Your task to perform on an android device: remove spam from my inbox in the gmail app Image 0: 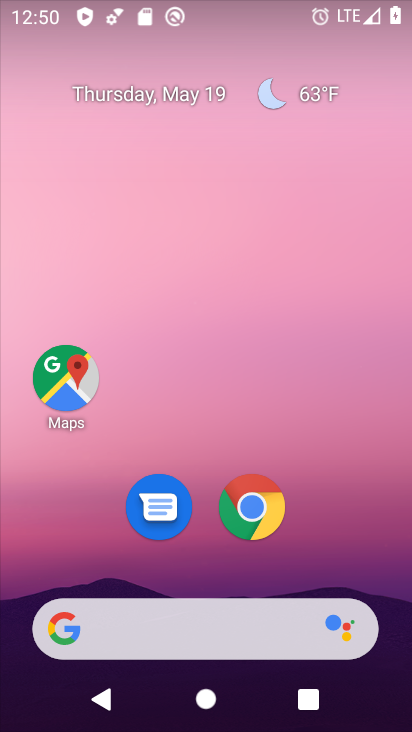
Step 0: drag from (194, 540) to (244, 248)
Your task to perform on an android device: remove spam from my inbox in the gmail app Image 1: 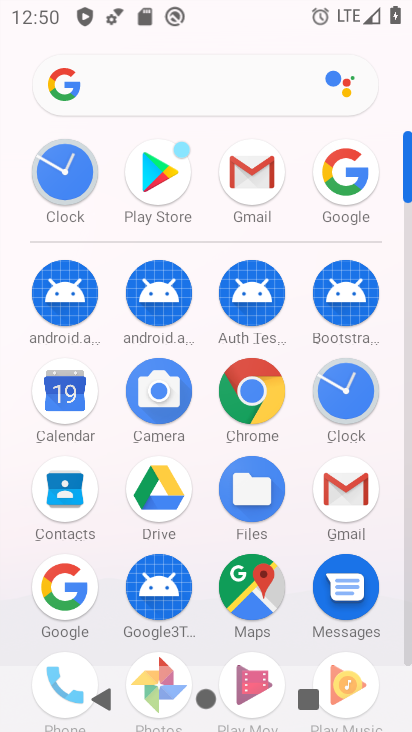
Step 1: click (239, 189)
Your task to perform on an android device: remove spam from my inbox in the gmail app Image 2: 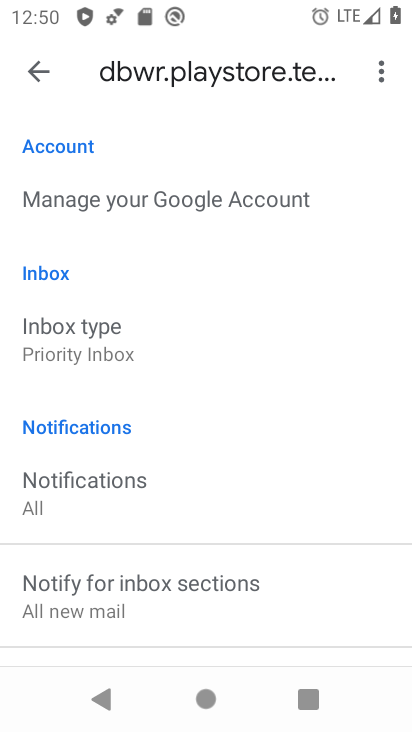
Step 2: click (43, 59)
Your task to perform on an android device: remove spam from my inbox in the gmail app Image 3: 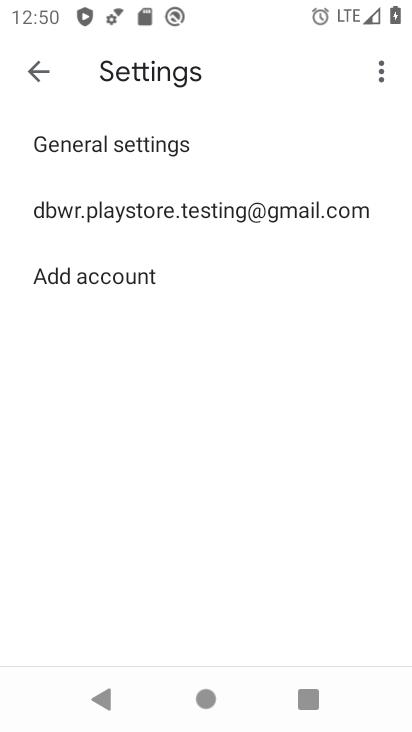
Step 3: click (43, 59)
Your task to perform on an android device: remove spam from my inbox in the gmail app Image 4: 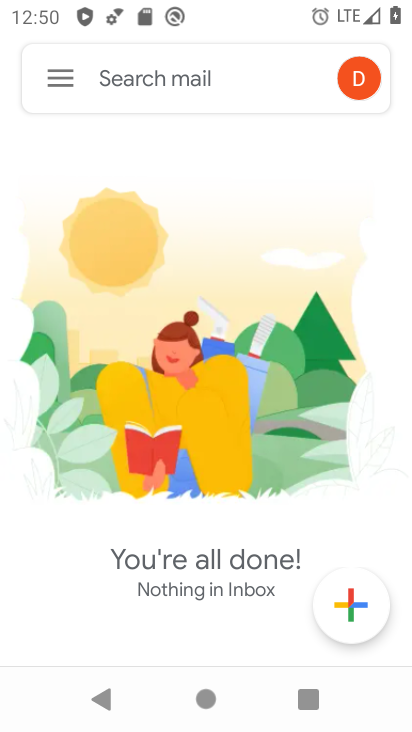
Step 4: click (52, 85)
Your task to perform on an android device: remove spam from my inbox in the gmail app Image 5: 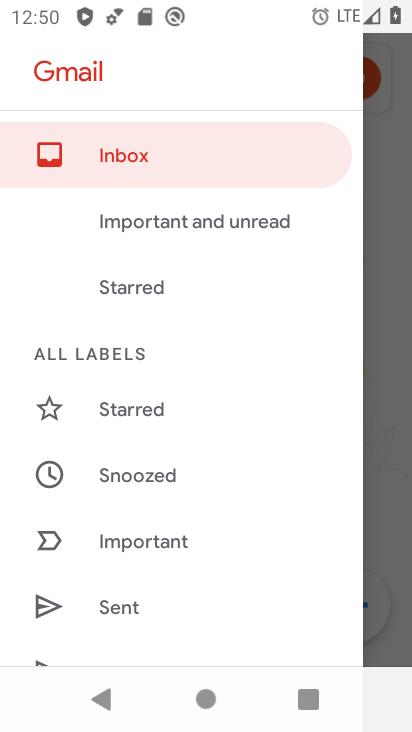
Step 5: click (80, 162)
Your task to perform on an android device: remove spam from my inbox in the gmail app Image 6: 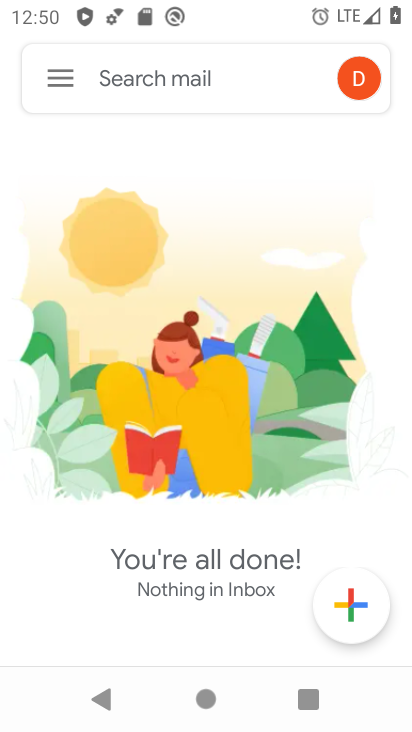
Step 6: click (67, 88)
Your task to perform on an android device: remove spam from my inbox in the gmail app Image 7: 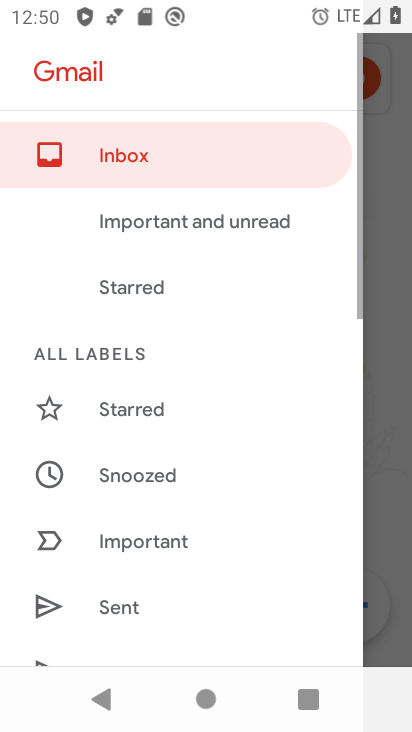
Step 7: drag from (141, 578) to (200, 335)
Your task to perform on an android device: remove spam from my inbox in the gmail app Image 8: 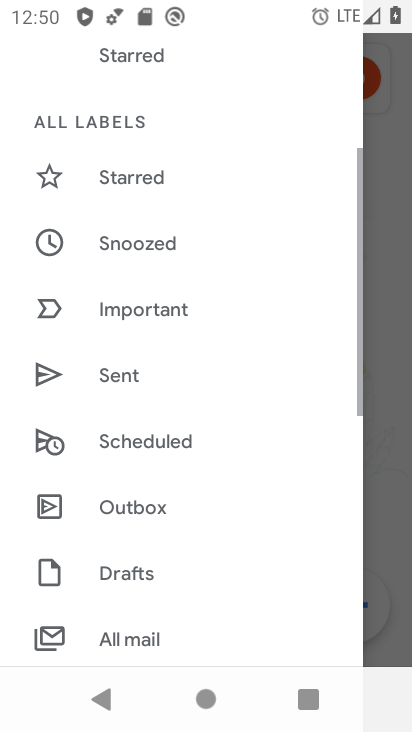
Step 8: drag from (152, 622) to (198, 297)
Your task to perform on an android device: remove spam from my inbox in the gmail app Image 9: 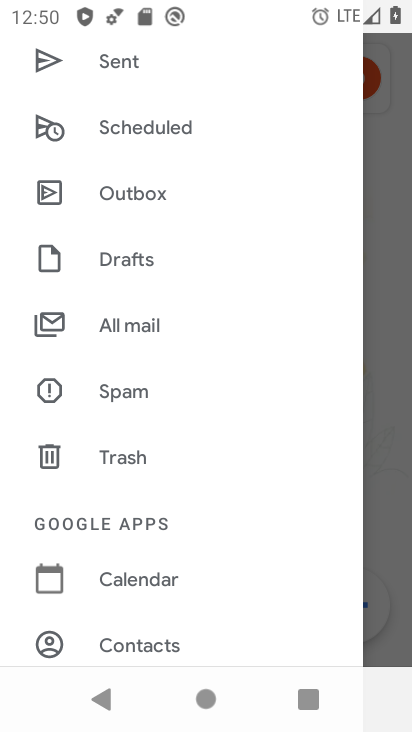
Step 9: click (126, 408)
Your task to perform on an android device: remove spam from my inbox in the gmail app Image 10: 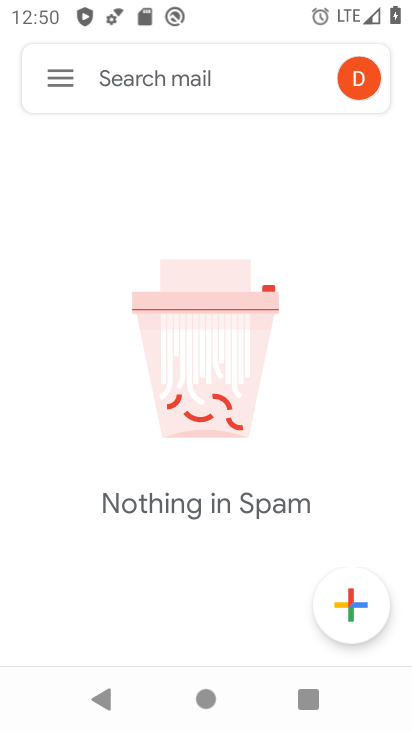
Step 10: task complete